Your task to perform on an android device: change your default location settings in chrome Image 0: 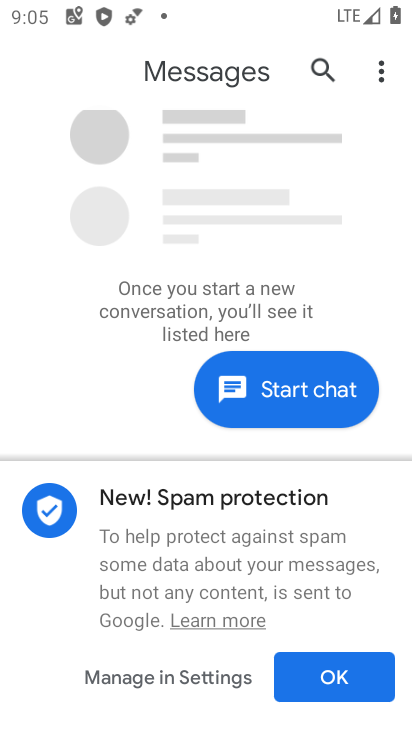
Step 0: press home button
Your task to perform on an android device: change your default location settings in chrome Image 1: 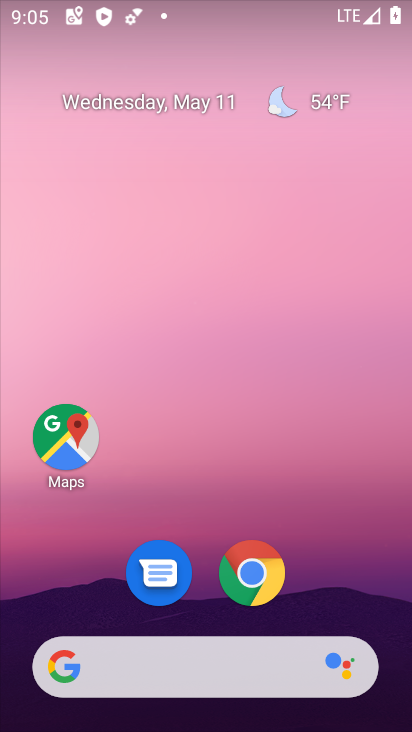
Step 1: drag from (168, 717) to (314, 3)
Your task to perform on an android device: change your default location settings in chrome Image 2: 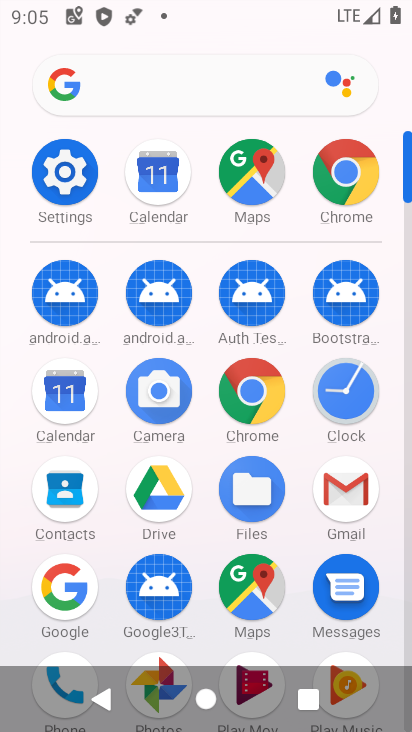
Step 2: click (252, 392)
Your task to perform on an android device: change your default location settings in chrome Image 3: 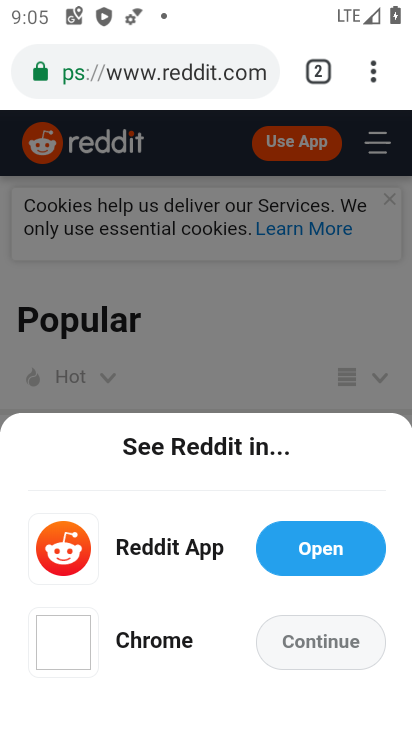
Step 3: click (365, 67)
Your task to perform on an android device: change your default location settings in chrome Image 4: 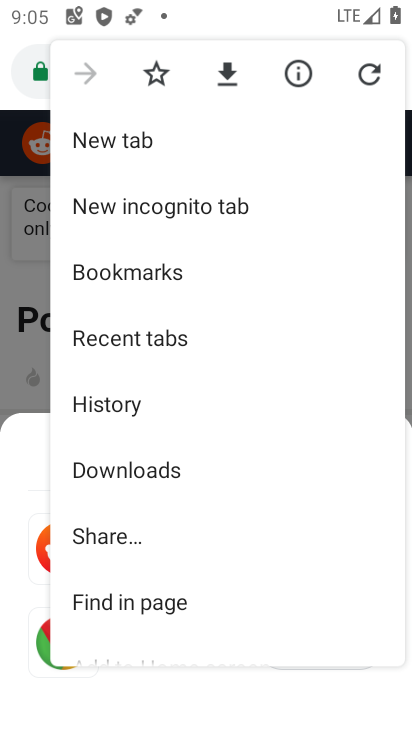
Step 4: drag from (203, 650) to (240, 170)
Your task to perform on an android device: change your default location settings in chrome Image 5: 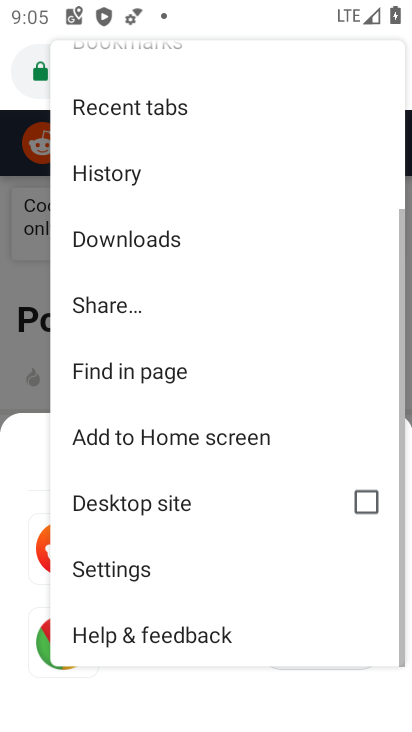
Step 5: click (160, 574)
Your task to perform on an android device: change your default location settings in chrome Image 6: 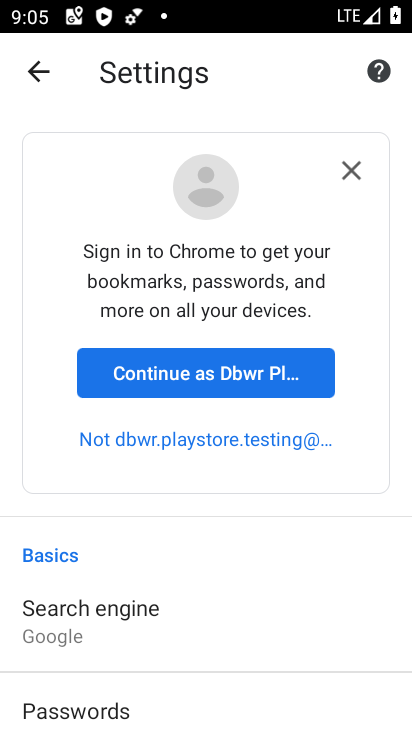
Step 6: drag from (165, 695) to (236, 346)
Your task to perform on an android device: change your default location settings in chrome Image 7: 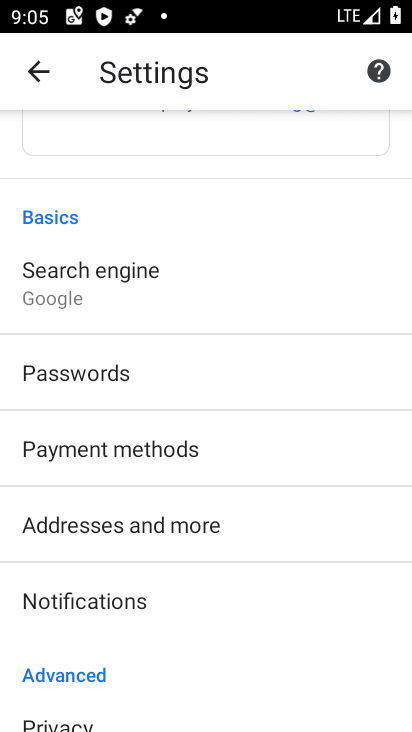
Step 7: drag from (202, 701) to (217, 358)
Your task to perform on an android device: change your default location settings in chrome Image 8: 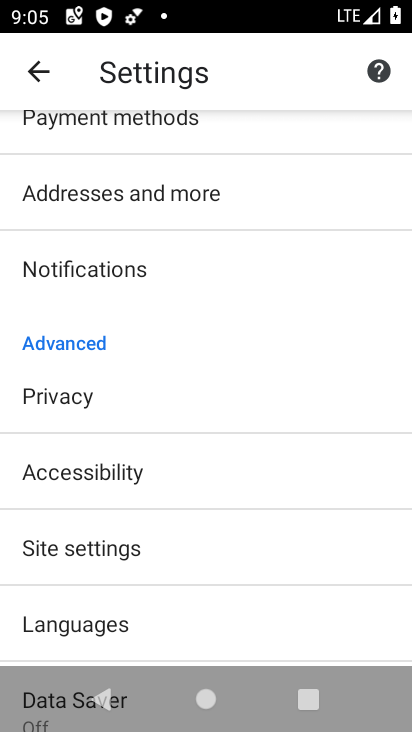
Step 8: click (111, 560)
Your task to perform on an android device: change your default location settings in chrome Image 9: 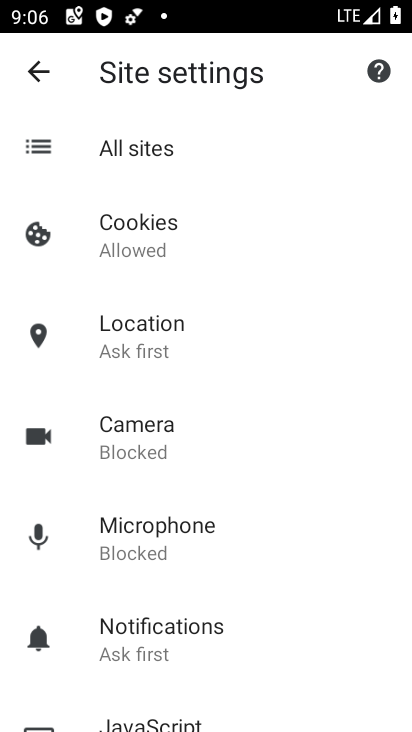
Step 9: click (167, 325)
Your task to perform on an android device: change your default location settings in chrome Image 10: 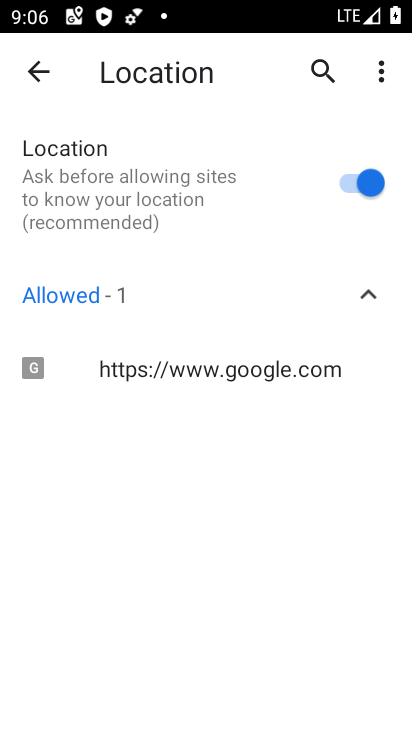
Step 10: task complete